Your task to perform on an android device: When is my next meeting? Image 0: 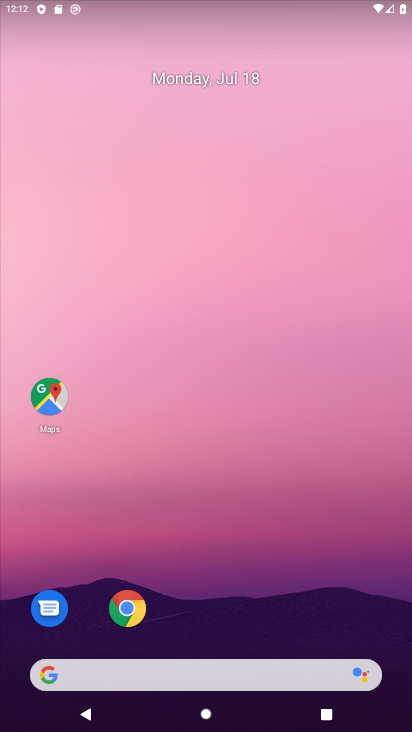
Step 0: drag from (260, 483) to (293, 59)
Your task to perform on an android device: When is my next meeting? Image 1: 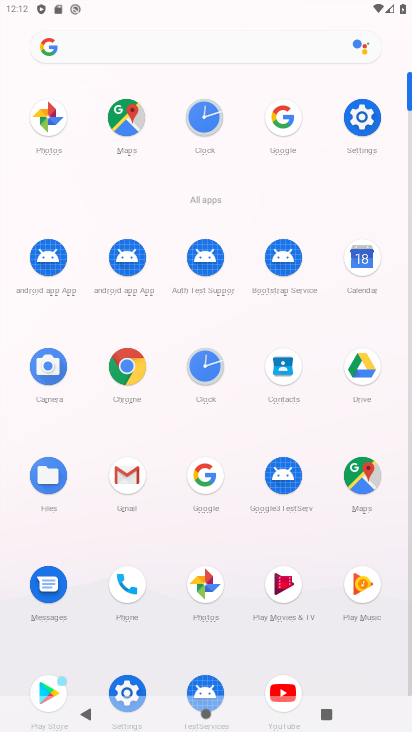
Step 1: click (354, 269)
Your task to perform on an android device: When is my next meeting? Image 2: 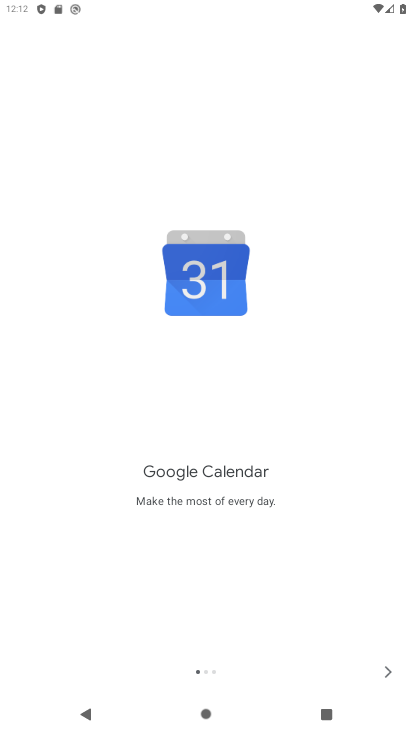
Step 2: click (387, 665)
Your task to perform on an android device: When is my next meeting? Image 3: 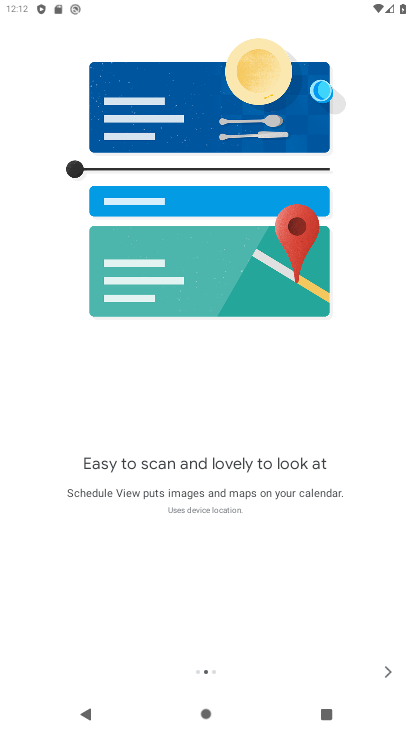
Step 3: click (396, 672)
Your task to perform on an android device: When is my next meeting? Image 4: 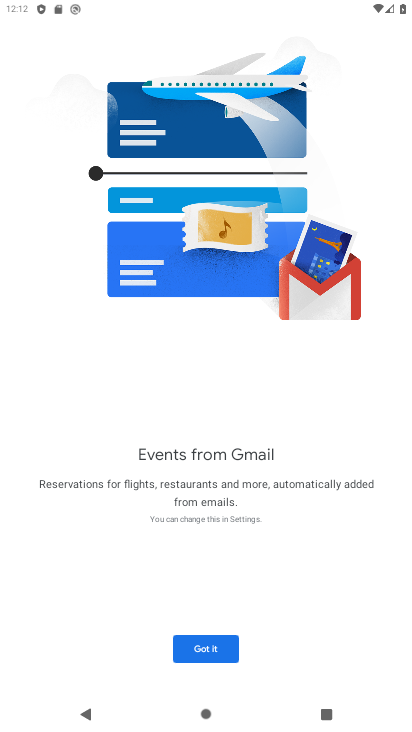
Step 4: click (196, 648)
Your task to perform on an android device: When is my next meeting? Image 5: 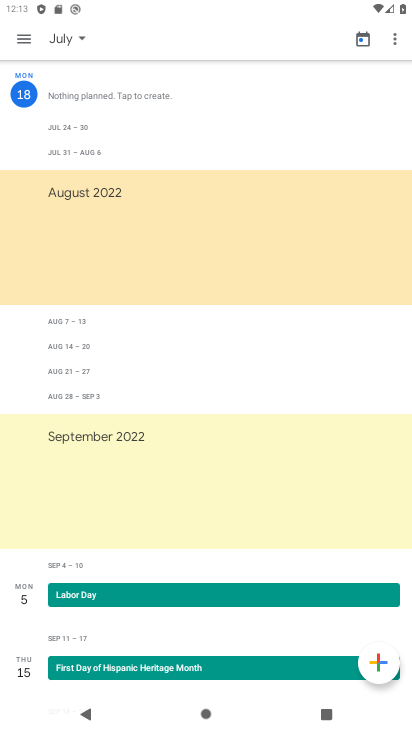
Step 5: click (67, 46)
Your task to perform on an android device: When is my next meeting? Image 6: 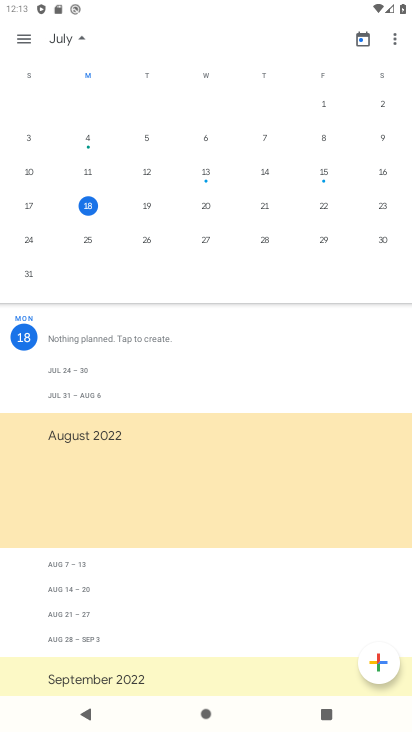
Step 6: task complete